Your task to perform on an android device: turn on improve location accuracy Image 0: 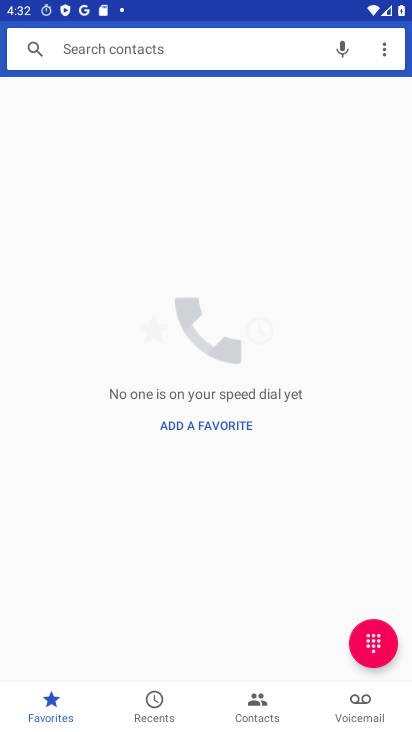
Step 0: press home button
Your task to perform on an android device: turn on improve location accuracy Image 1: 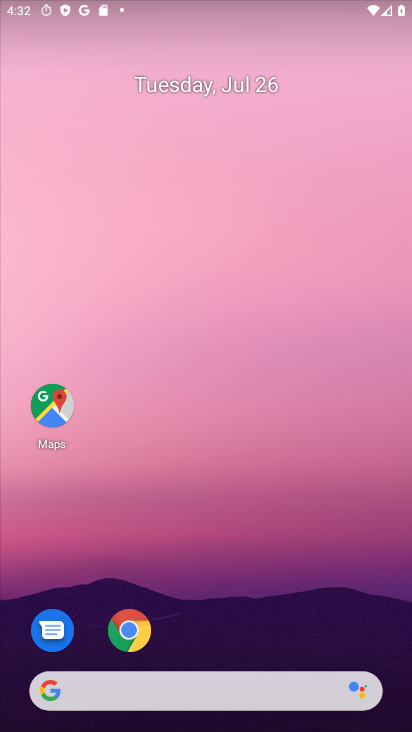
Step 1: drag from (303, 587) to (206, 44)
Your task to perform on an android device: turn on improve location accuracy Image 2: 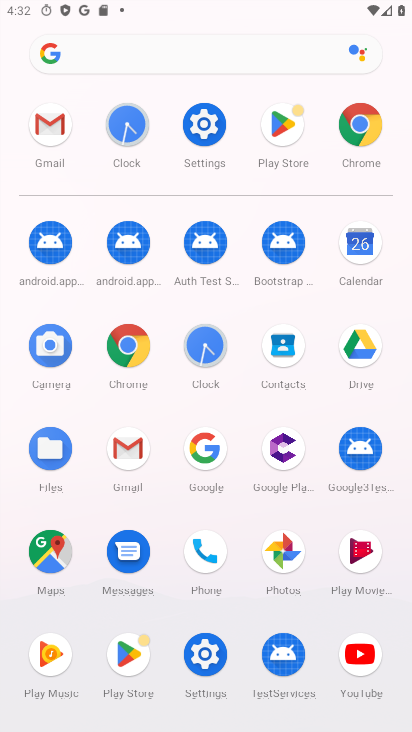
Step 2: click (205, 123)
Your task to perform on an android device: turn on improve location accuracy Image 3: 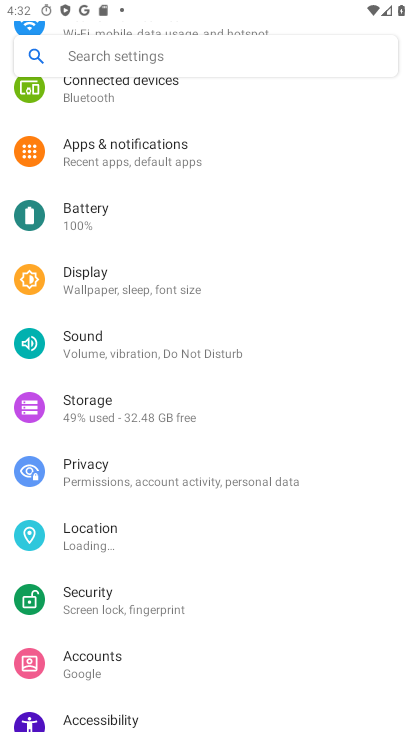
Step 3: click (93, 530)
Your task to perform on an android device: turn on improve location accuracy Image 4: 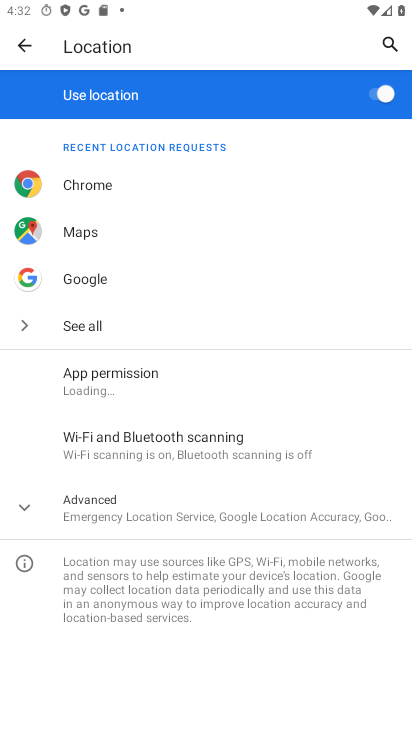
Step 4: click (150, 508)
Your task to perform on an android device: turn on improve location accuracy Image 5: 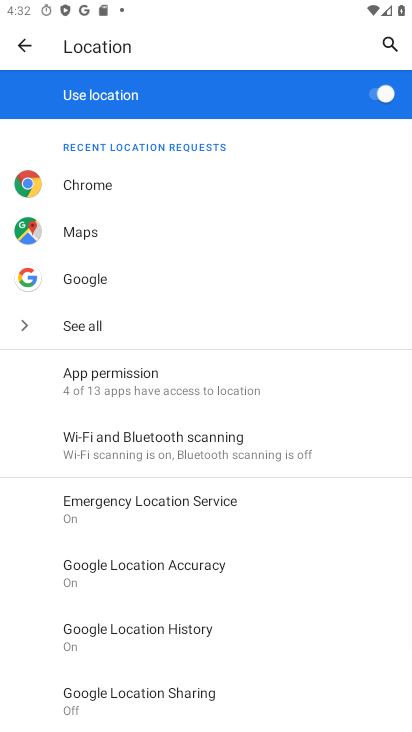
Step 5: click (215, 562)
Your task to perform on an android device: turn on improve location accuracy Image 6: 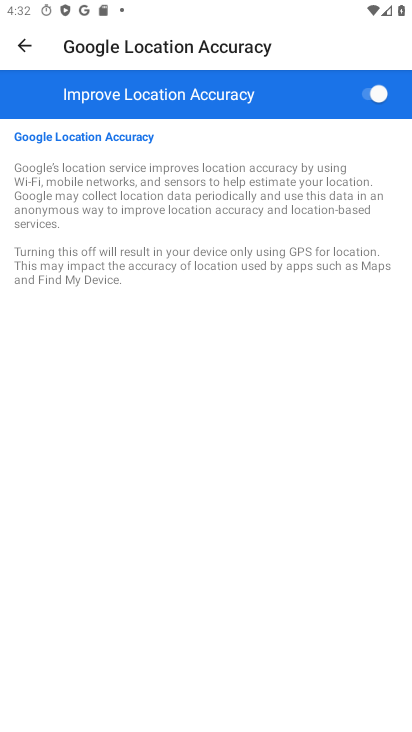
Step 6: task complete